Your task to perform on an android device: open device folders in google photos Image 0: 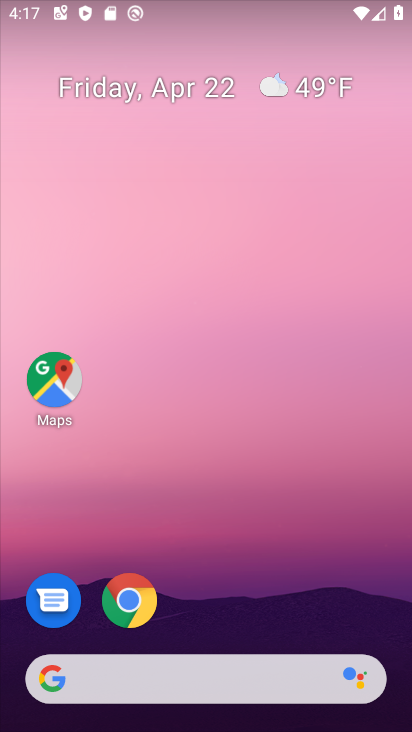
Step 0: drag from (202, 614) to (205, 24)
Your task to perform on an android device: open device folders in google photos Image 1: 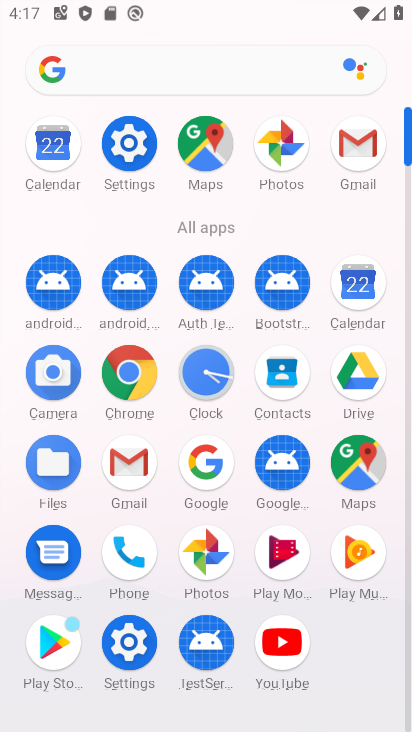
Step 1: click (281, 141)
Your task to perform on an android device: open device folders in google photos Image 2: 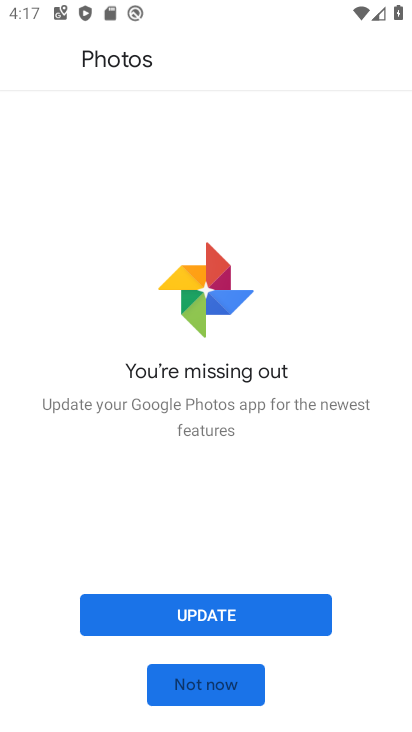
Step 2: click (208, 610)
Your task to perform on an android device: open device folders in google photos Image 3: 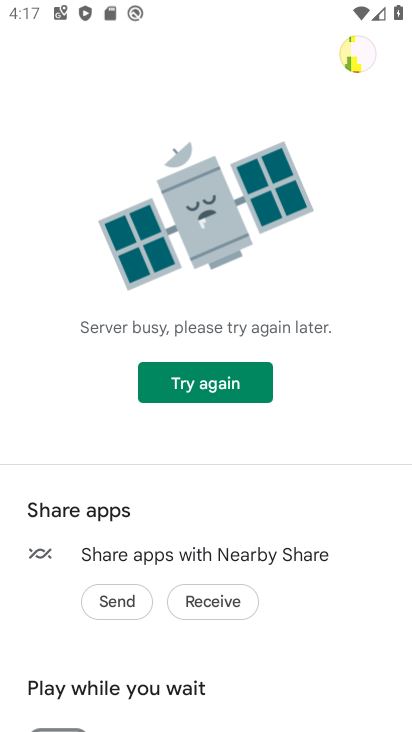
Step 3: click (171, 393)
Your task to perform on an android device: open device folders in google photos Image 4: 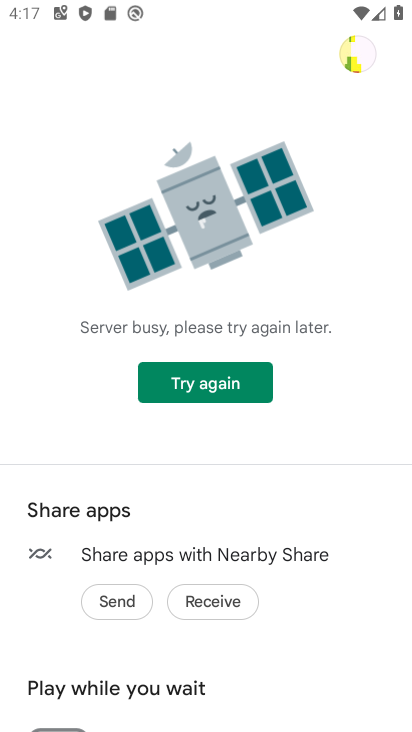
Step 4: click (171, 393)
Your task to perform on an android device: open device folders in google photos Image 5: 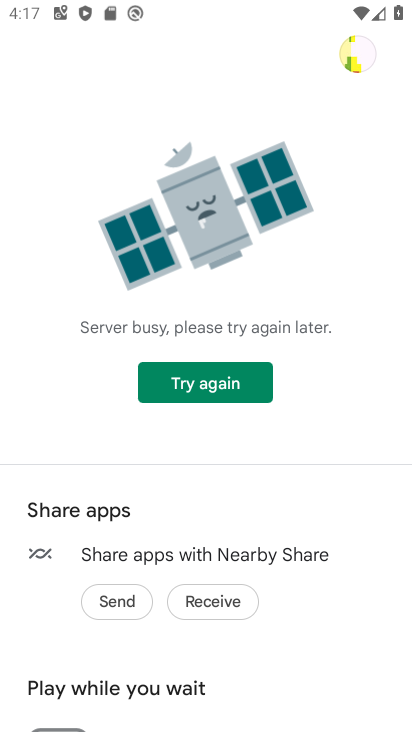
Step 5: task complete